Your task to perform on an android device: open device folders in google photos Image 0: 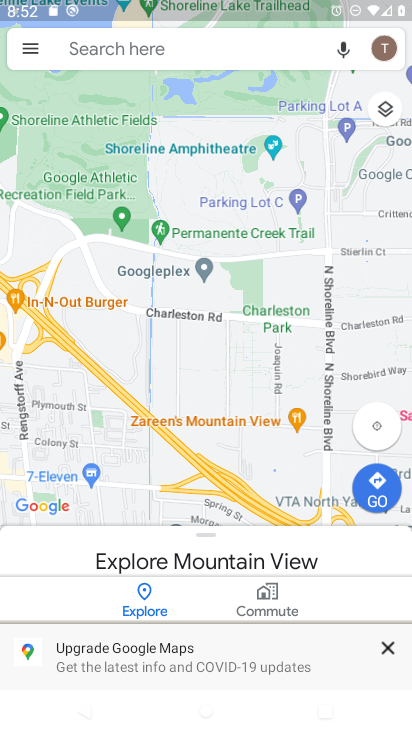
Step 0: press home button
Your task to perform on an android device: open device folders in google photos Image 1: 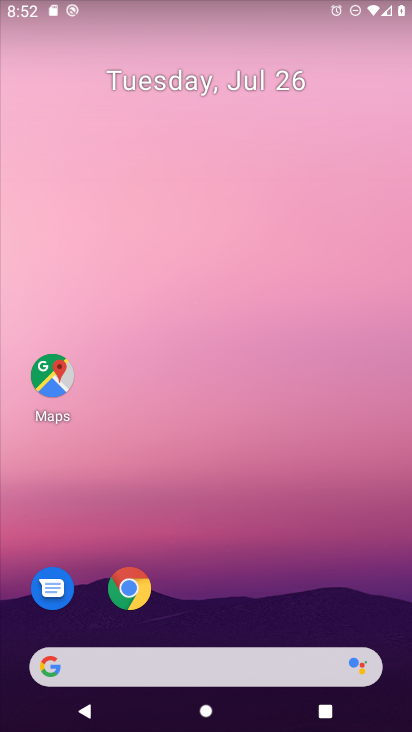
Step 1: drag from (210, 694) to (260, 135)
Your task to perform on an android device: open device folders in google photos Image 2: 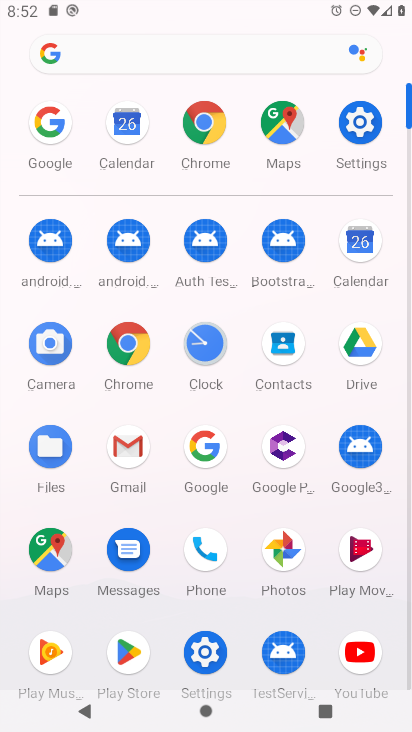
Step 2: click (288, 550)
Your task to perform on an android device: open device folders in google photos Image 3: 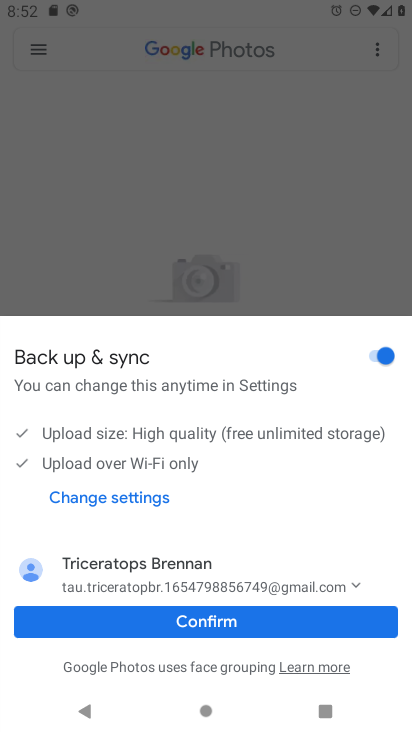
Step 3: click (217, 624)
Your task to perform on an android device: open device folders in google photos Image 4: 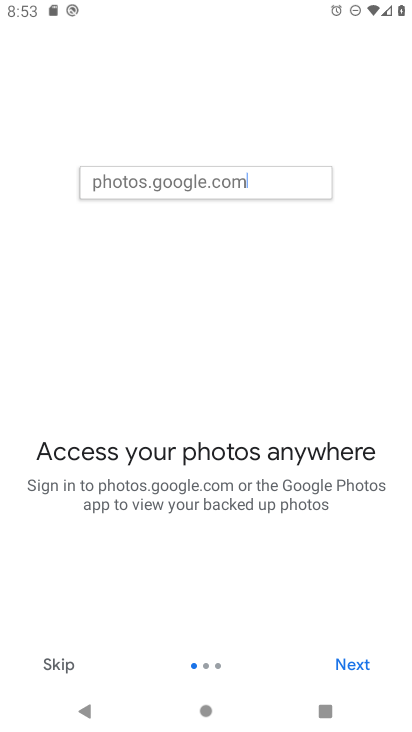
Step 4: click (361, 664)
Your task to perform on an android device: open device folders in google photos Image 5: 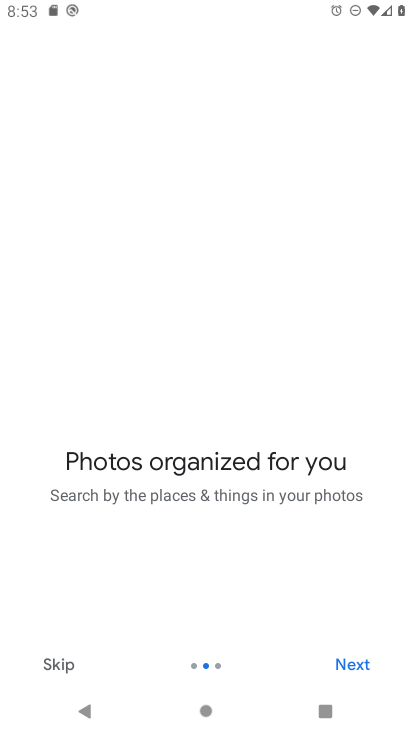
Step 5: click (359, 670)
Your task to perform on an android device: open device folders in google photos Image 6: 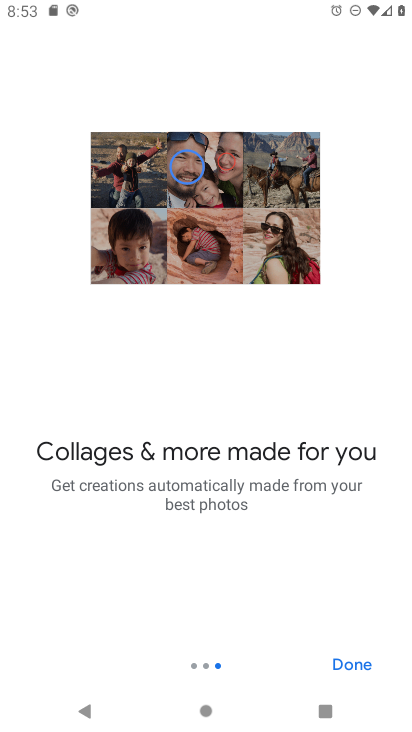
Step 6: click (361, 660)
Your task to perform on an android device: open device folders in google photos Image 7: 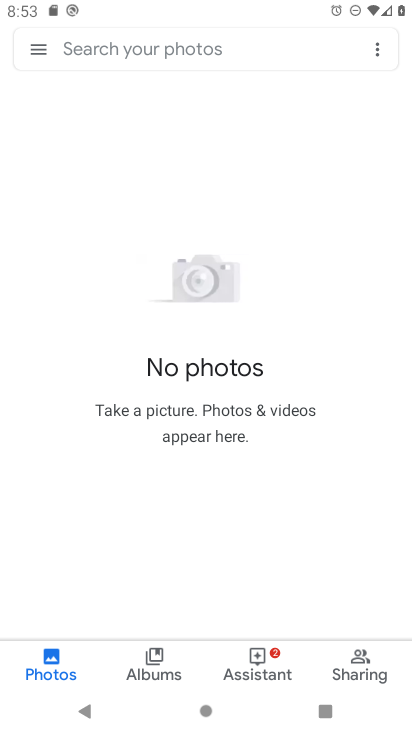
Step 7: click (31, 48)
Your task to perform on an android device: open device folders in google photos Image 8: 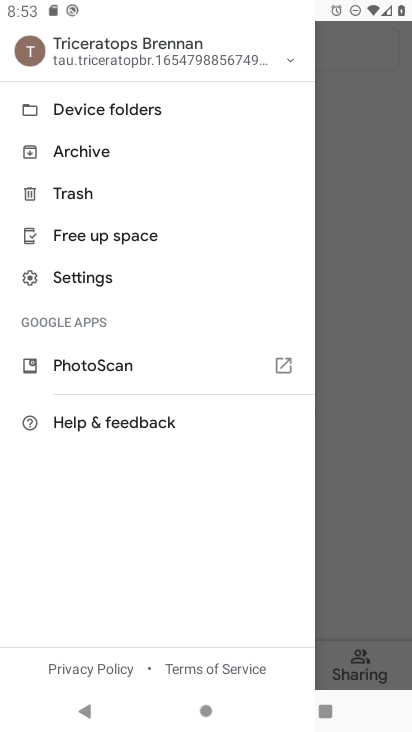
Step 8: click (158, 115)
Your task to perform on an android device: open device folders in google photos Image 9: 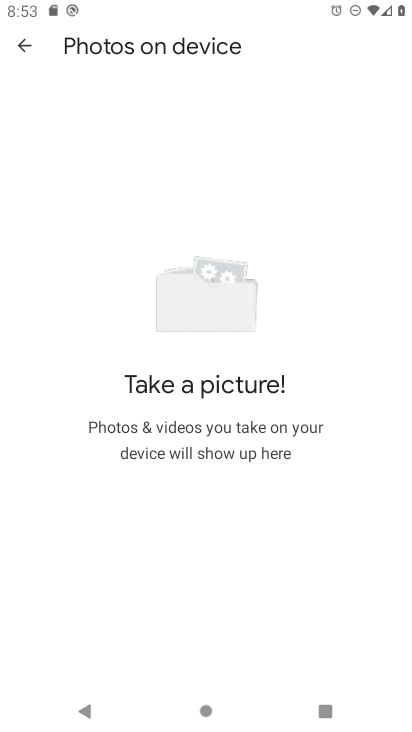
Step 9: task complete